Your task to perform on an android device: turn off smart reply in the gmail app Image 0: 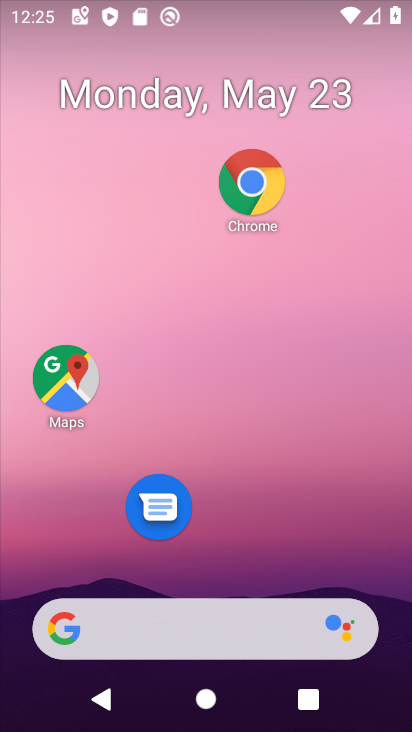
Step 0: drag from (244, 679) to (146, 73)
Your task to perform on an android device: turn off smart reply in the gmail app Image 1: 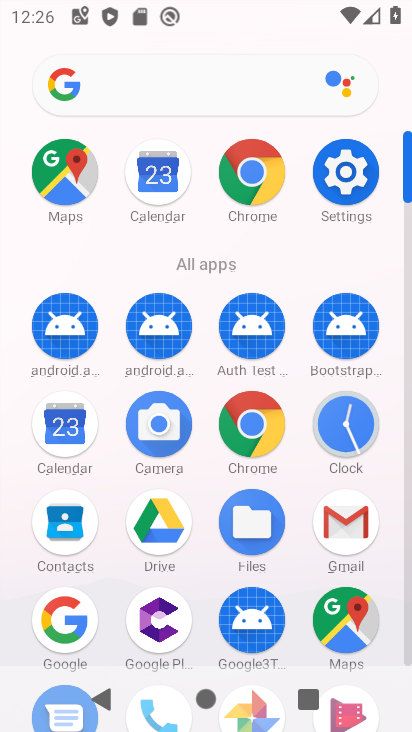
Step 1: click (325, 511)
Your task to perform on an android device: turn off smart reply in the gmail app Image 2: 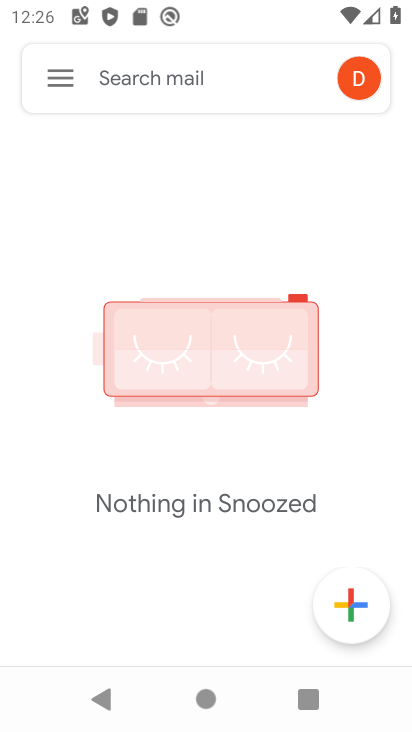
Step 2: click (52, 77)
Your task to perform on an android device: turn off smart reply in the gmail app Image 3: 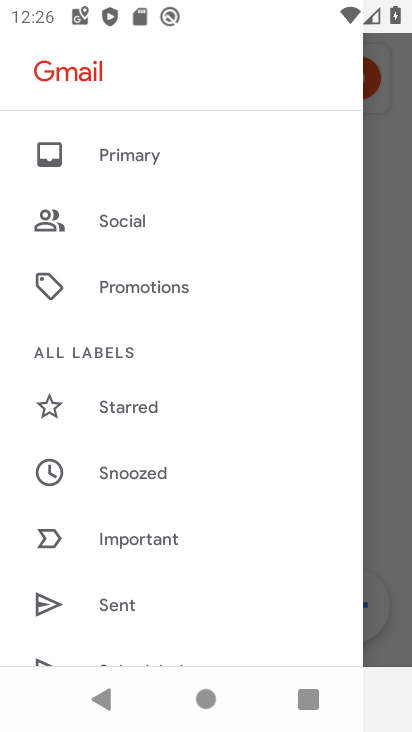
Step 3: drag from (151, 627) to (272, 17)
Your task to perform on an android device: turn off smart reply in the gmail app Image 4: 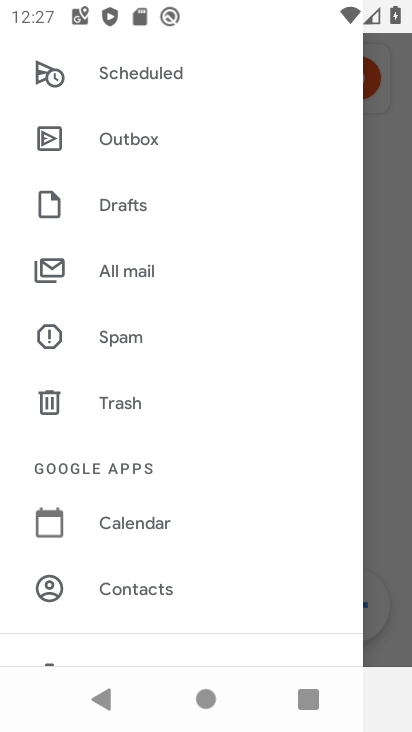
Step 4: drag from (121, 616) to (225, 0)
Your task to perform on an android device: turn off smart reply in the gmail app Image 5: 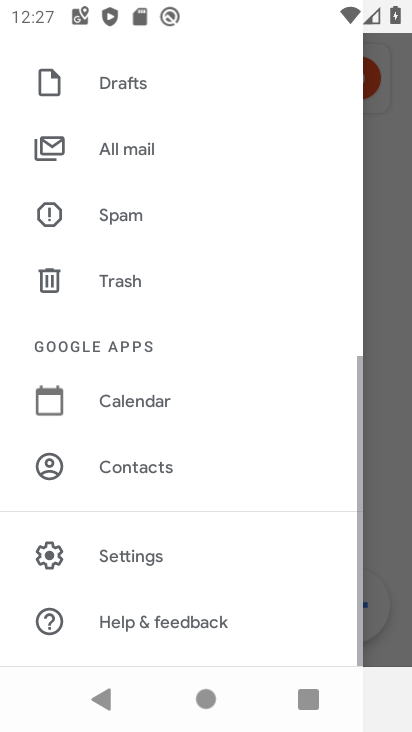
Step 5: click (138, 549)
Your task to perform on an android device: turn off smart reply in the gmail app Image 6: 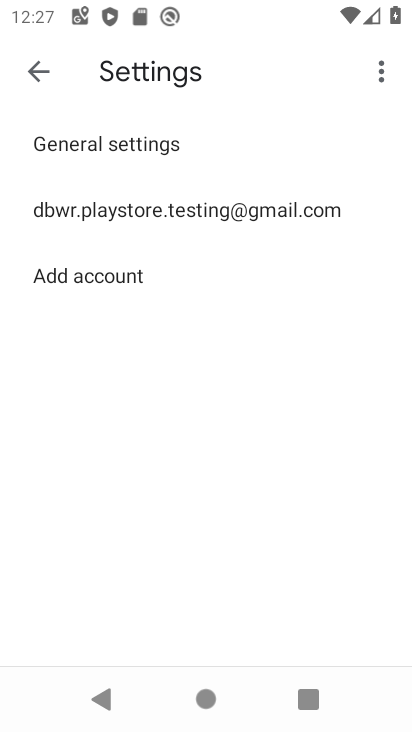
Step 6: click (265, 205)
Your task to perform on an android device: turn off smart reply in the gmail app Image 7: 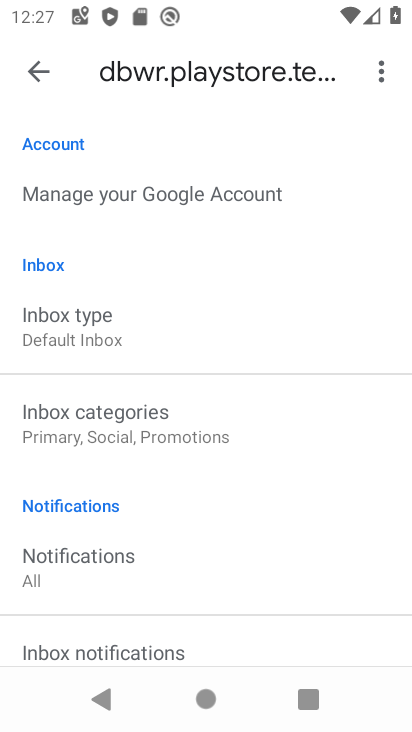
Step 7: drag from (257, 577) to (346, 0)
Your task to perform on an android device: turn off smart reply in the gmail app Image 8: 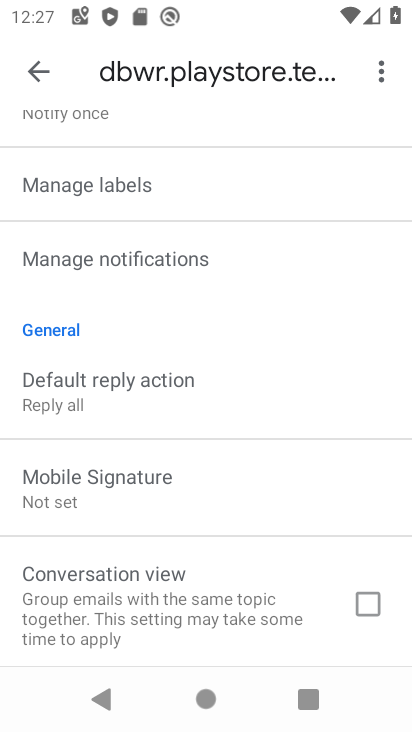
Step 8: drag from (240, 615) to (318, 15)
Your task to perform on an android device: turn off smart reply in the gmail app Image 9: 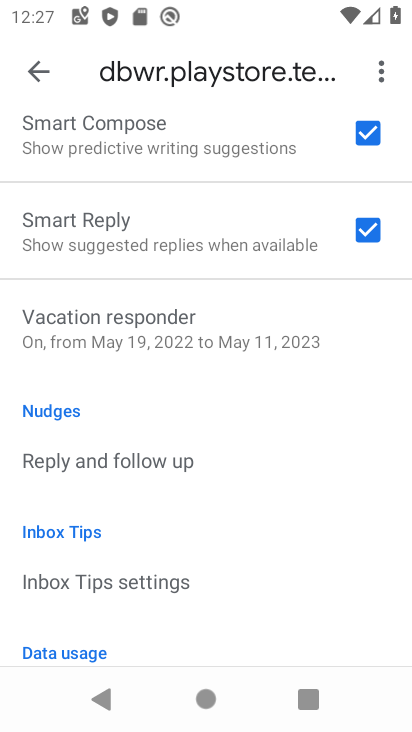
Step 9: click (374, 228)
Your task to perform on an android device: turn off smart reply in the gmail app Image 10: 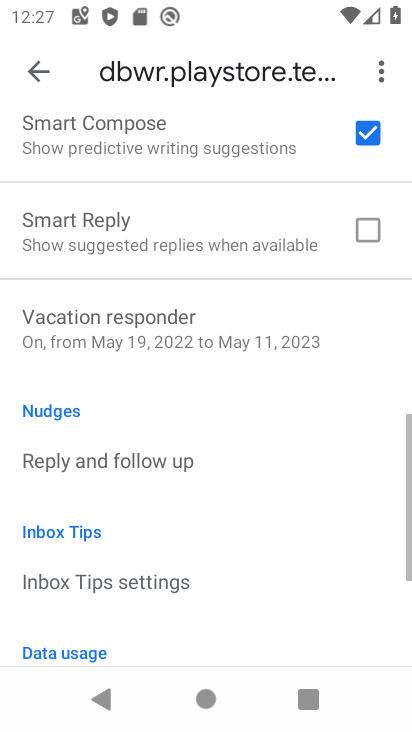
Step 10: task complete